Your task to perform on an android device: What's the weather today? Image 0: 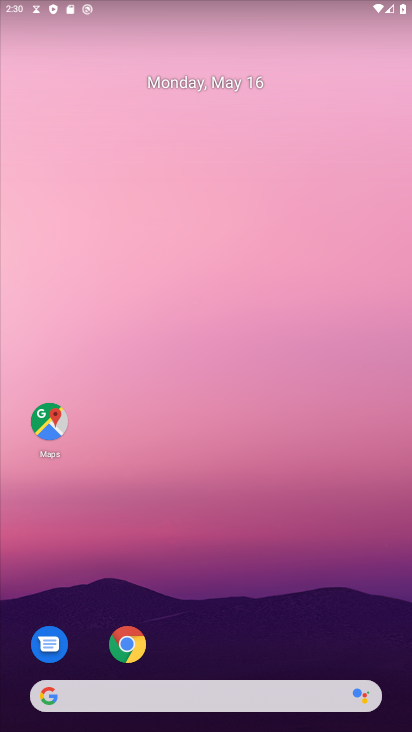
Step 0: drag from (263, 619) to (283, 248)
Your task to perform on an android device: What's the weather today? Image 1: 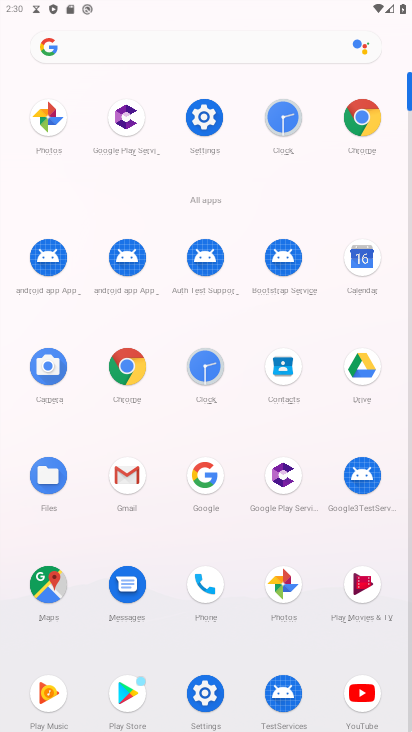
Step 1: click (367, 141)
Your task to perform on an android device: What's the weather today? Image 2: 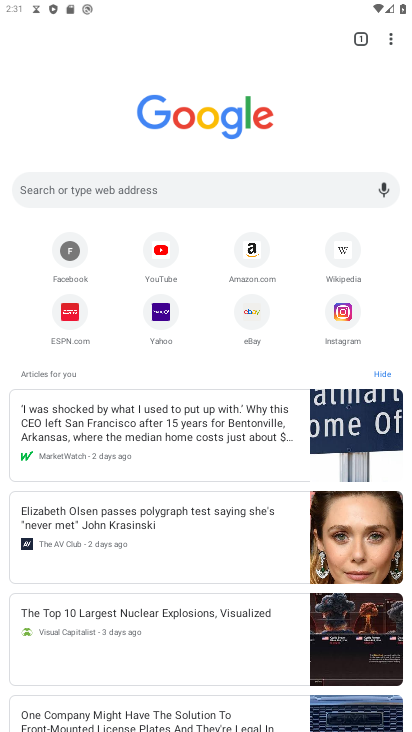
Step 2: click (167, 191)
Your task to perform on an android device: What's the weather today? Image 3: 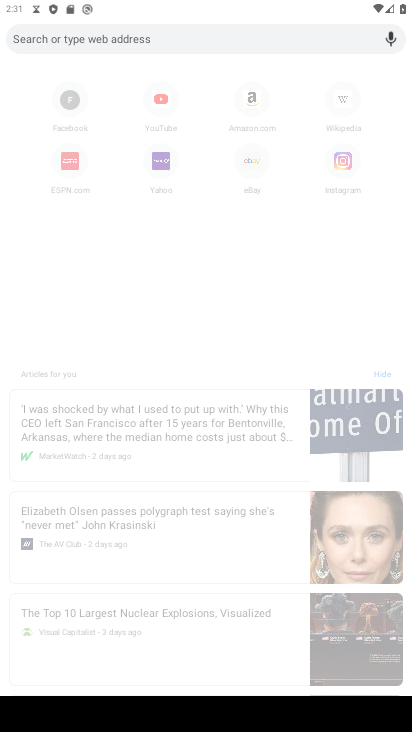
Step 3: type "whats t"
Your task to perform on an android device: What's the weather today? Image 4: 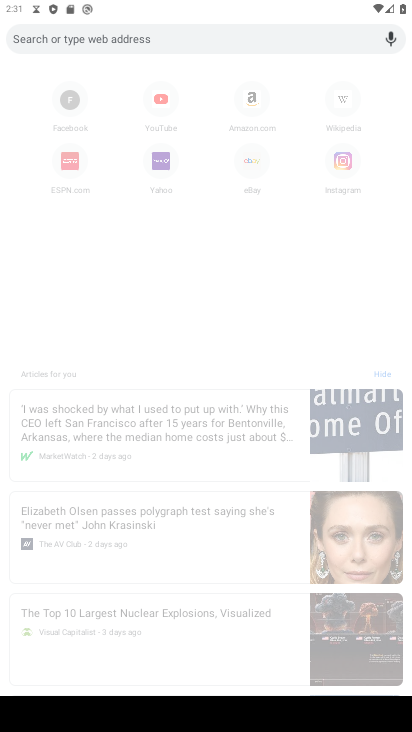
Step 4: click (143, 51)
Your task to perform on an android device: What's the weather today? Image 5: 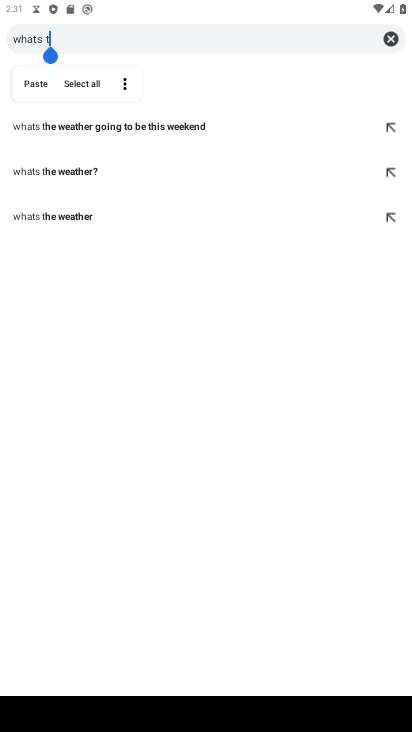
Step 5: click (397, 36)
Your task to perform on an android device: What's the weather today? Image 6: 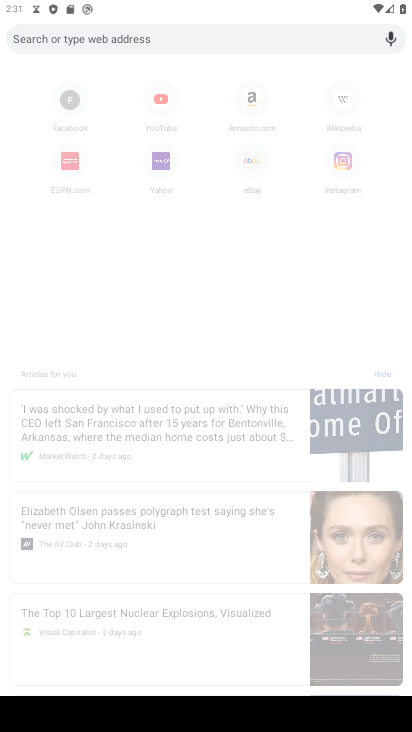
Step 6: type "whats 9the weather today"
Your task to perform on an android device: What's the weather today? Image 7: 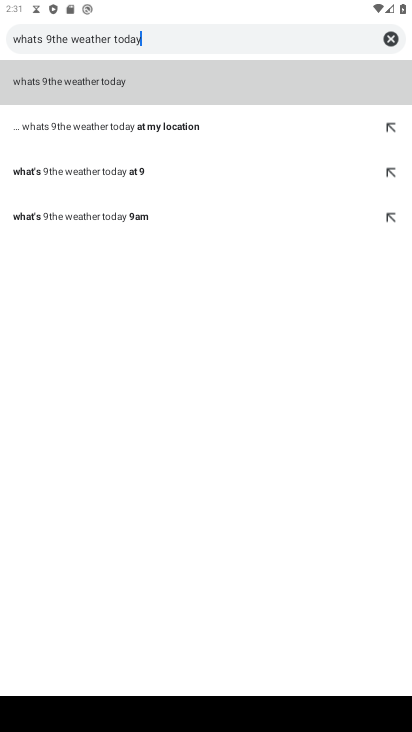
Step 7: click (117, 87)
Your task to perform on an android device: What's the weather today? Image 8: 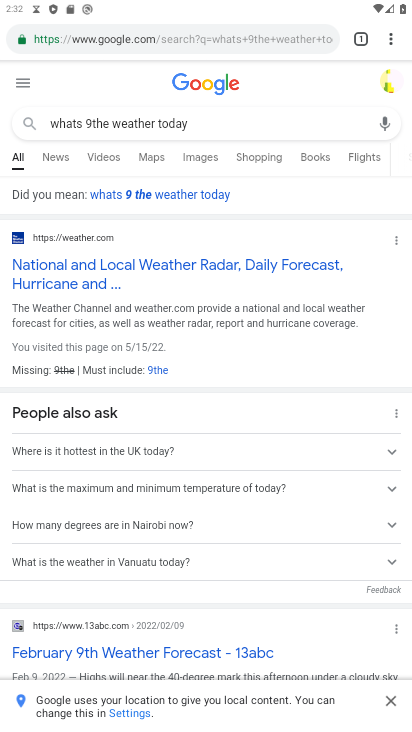
Step 8: click (174, 37)
Your task to perform on an android device: What's the weather today? Image 9: 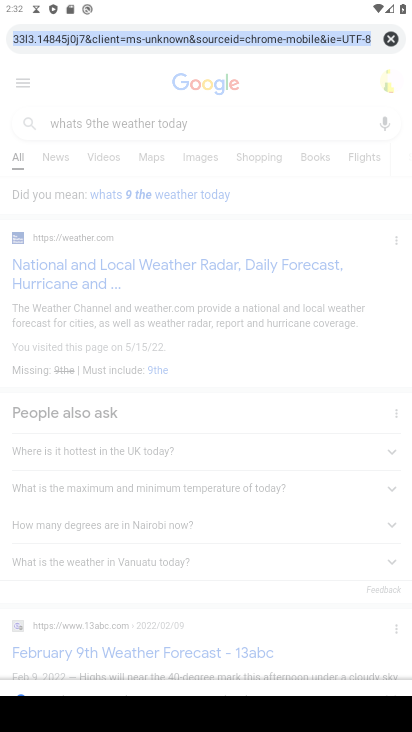
Step 9: type "What's the weather today"
Your task to perform on an android device: What's the weather today? Image 10: 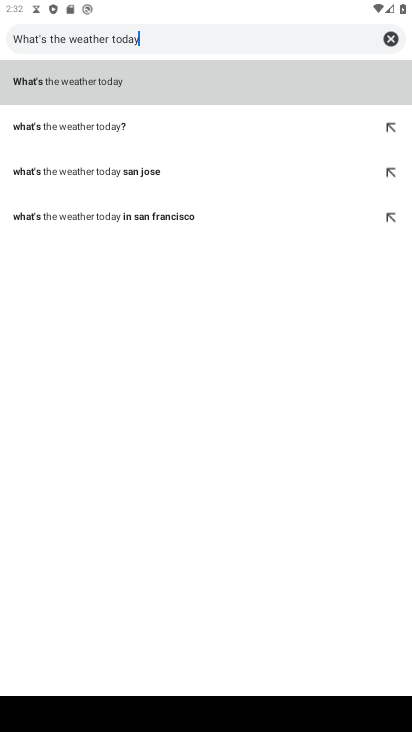
Step 10: click (153, 81)
Your task to perform on an android device: What's the weather today? Image 11: 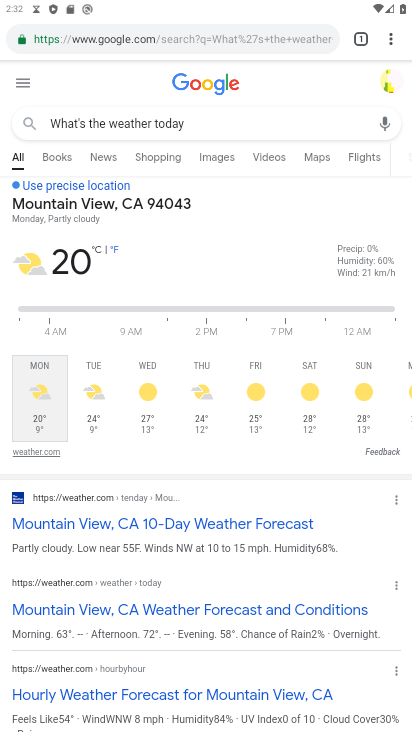
Step 11: task complete